Your task to perform on an android device: Search for Italian restaurants on Maps Image 0: 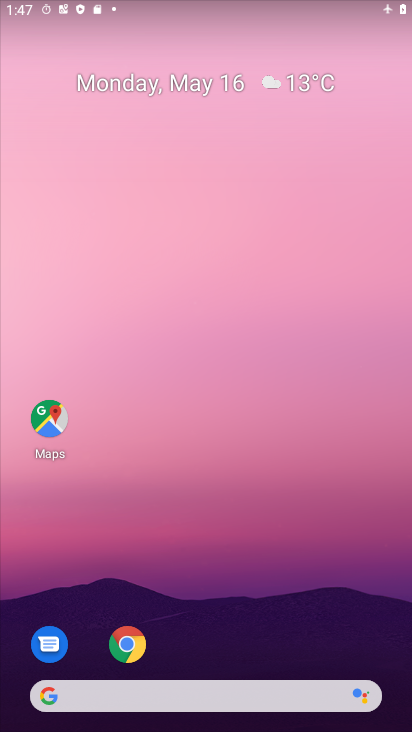
Step 0: click (44, 446)
Your task to perform on an android device: Search for Italian restaurants on Maps Image 1: 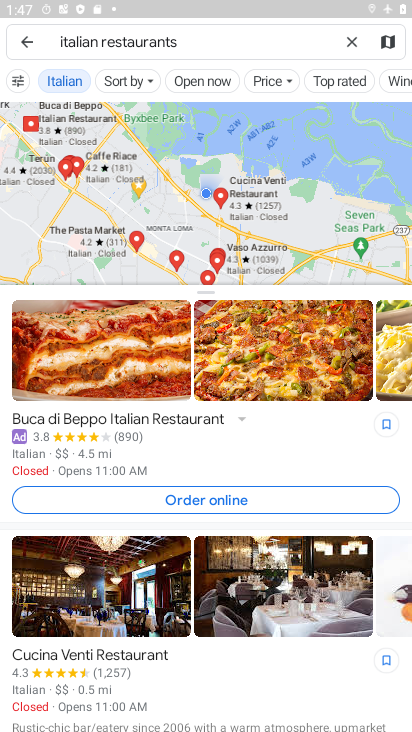
Step 1: task complete